Your task to perform on an android device: Search for logitech g502 on newegg.com, select the first entry, add it to the cart, then select checkout. Image 0: 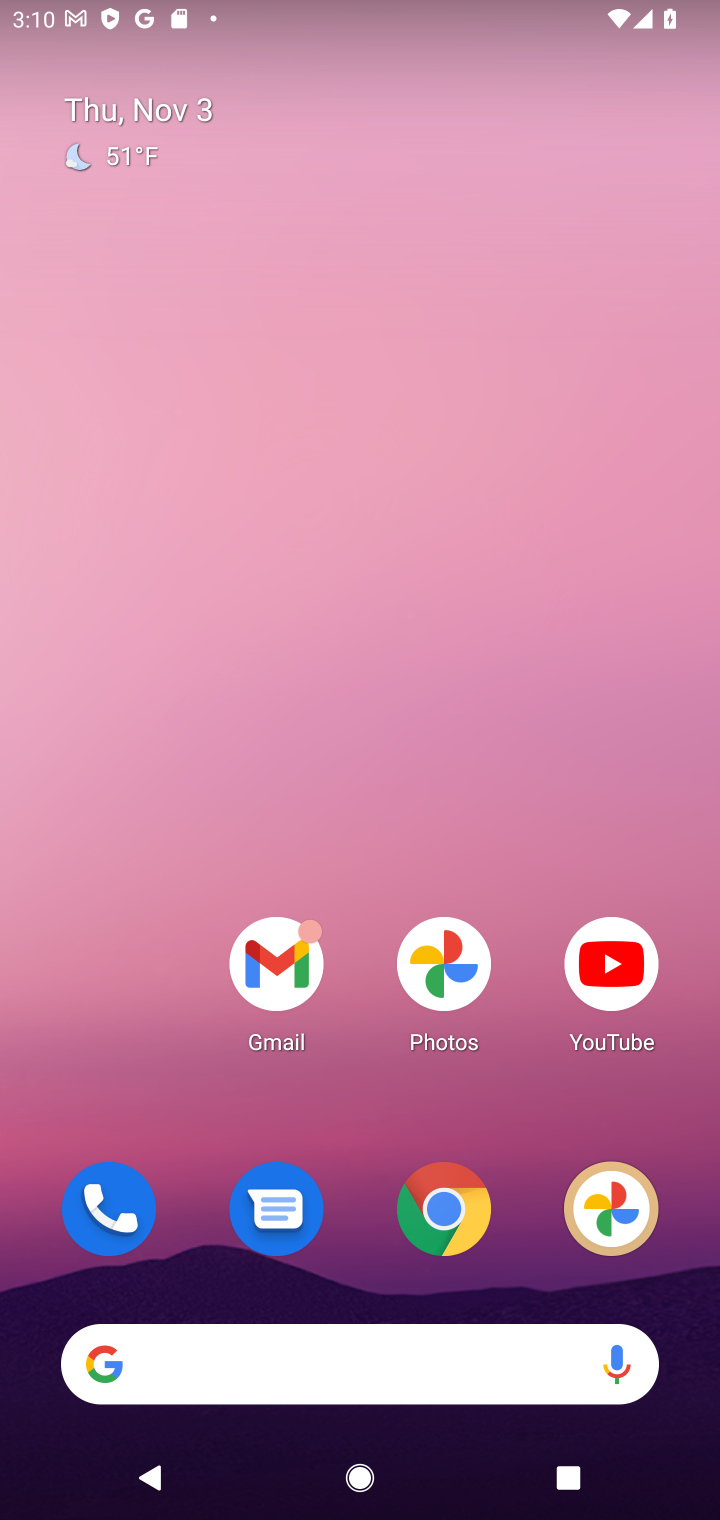
Step 0: click (427, 1246)
Your task to perform on an android device: Search for logitech g502 on newegg.com, select the first entry, add it to the cart, then select checkout. Image 1: 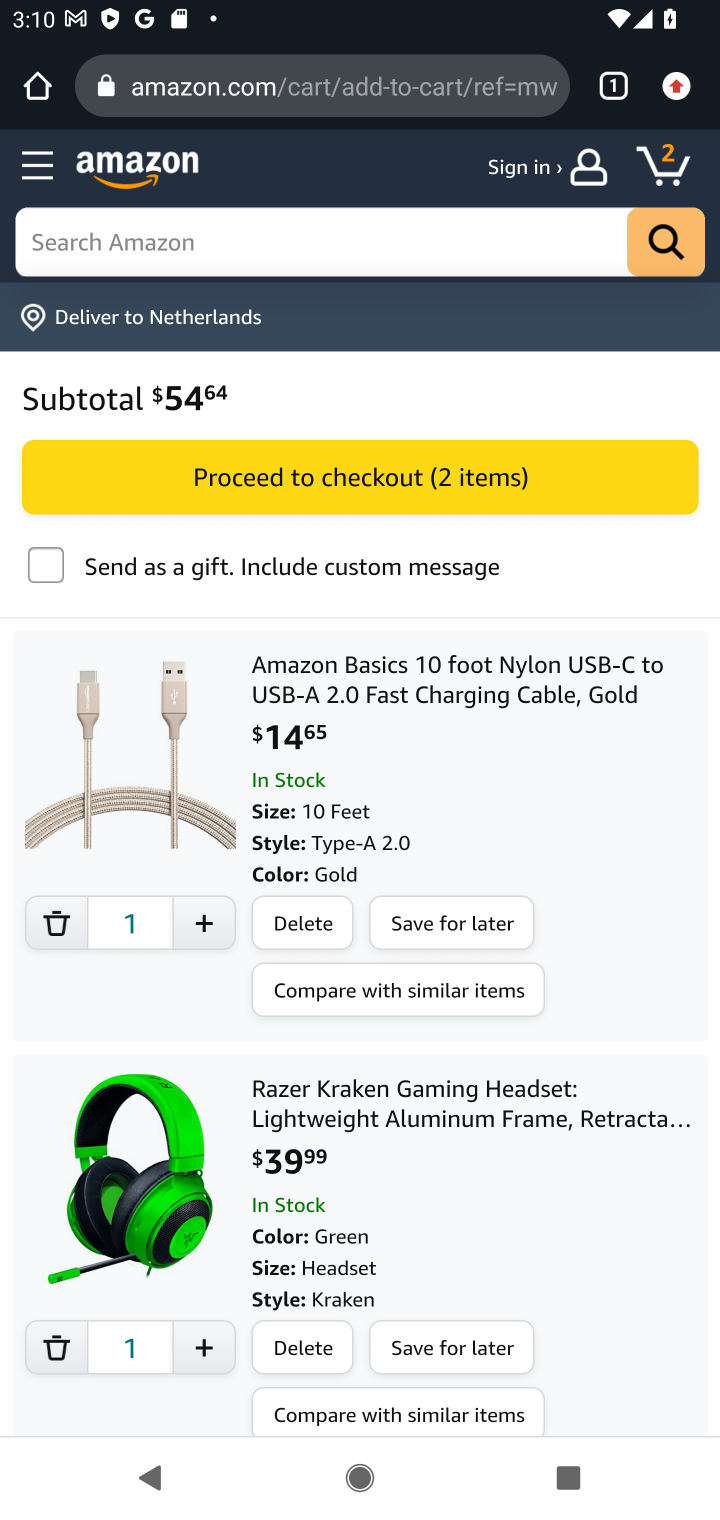
Step 1: click (325, 65)
Your task to perform on an android device: Search for logitech g502 on newegg.com, select the first entry, add it to the cart, then select checkout. Image 2: 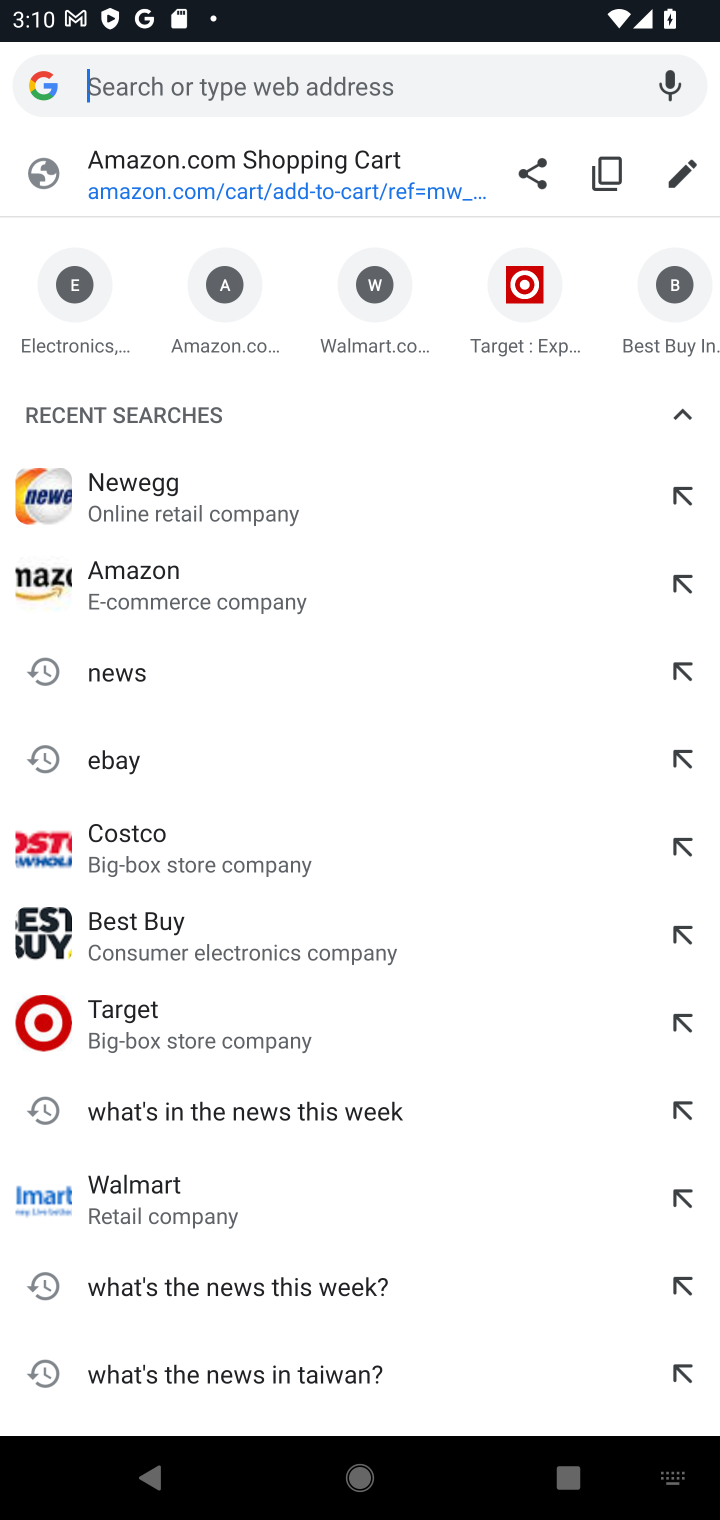
Step 2: type "newegg.com"
Your task to perform on an android device: Search for logitech g502 on newegg.com, select the first entry, add it to the cart, then select checkout. Image 3: 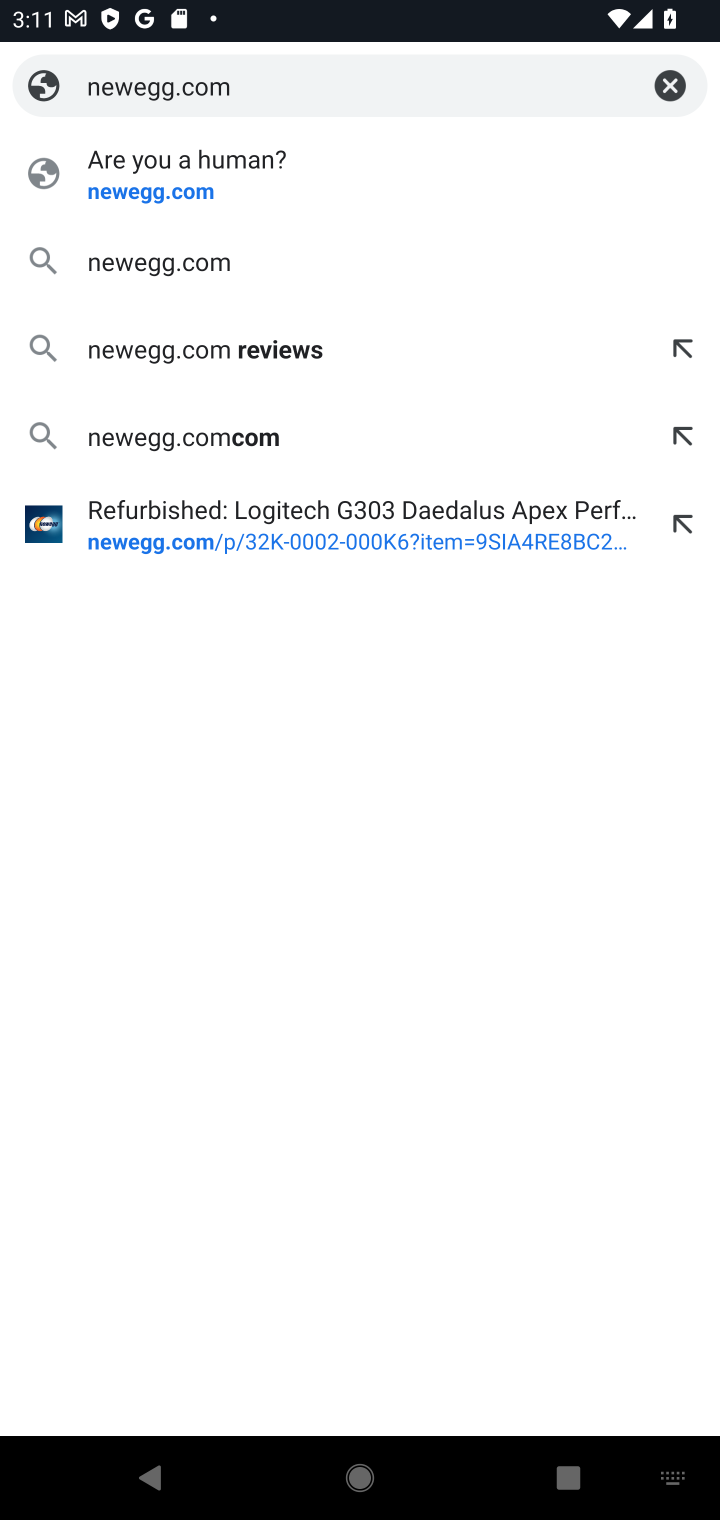
Step 3: click (215, 267)
Your task to perform on an android device: Search for logitech g502 on newegg.com, select the first entry, add it to the cart, then select checkout. Image 4: 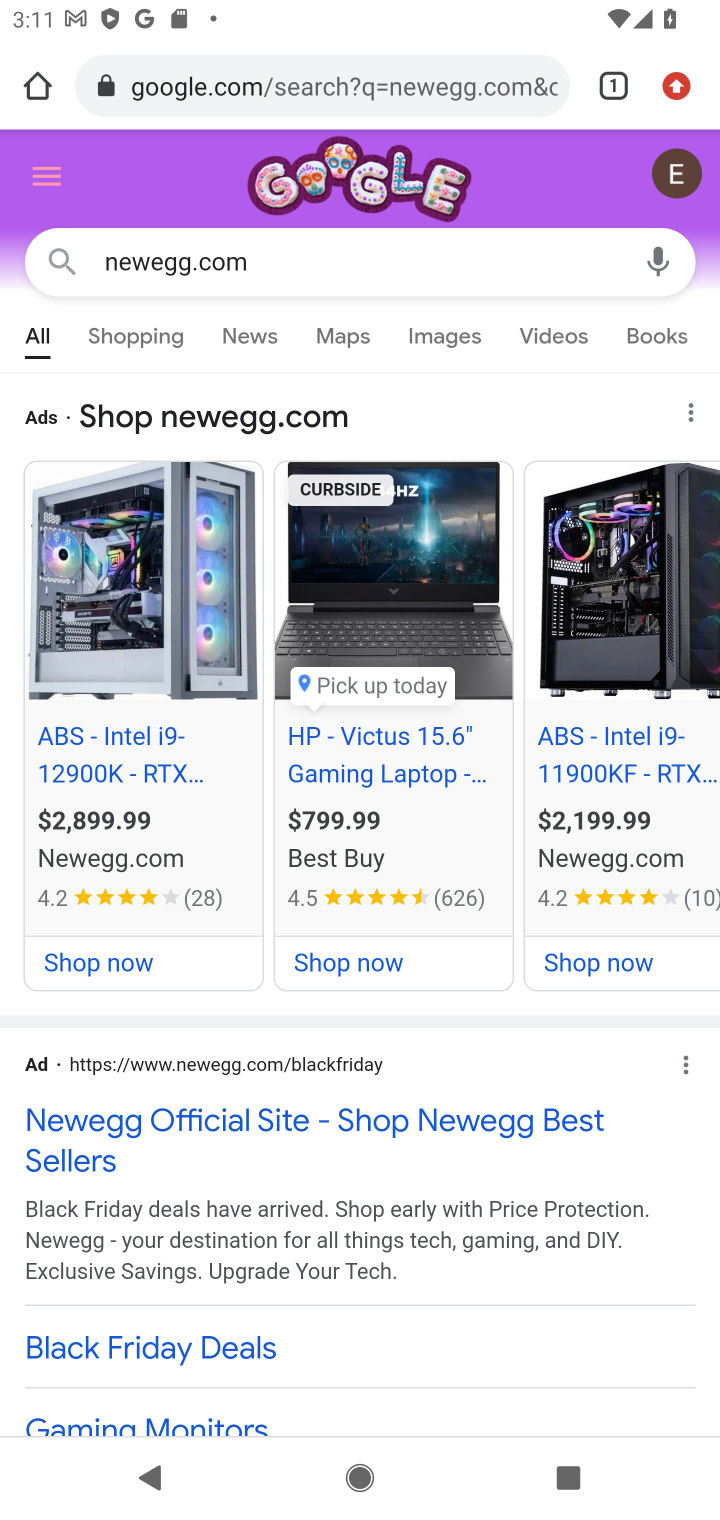
Step 4: drag from (561, 1251) to (460, 499)
Your task to perform on an android device: Search for logitech g502 on newegg.com, select the first entry, add it to the cart, then select checkout. Image 5: 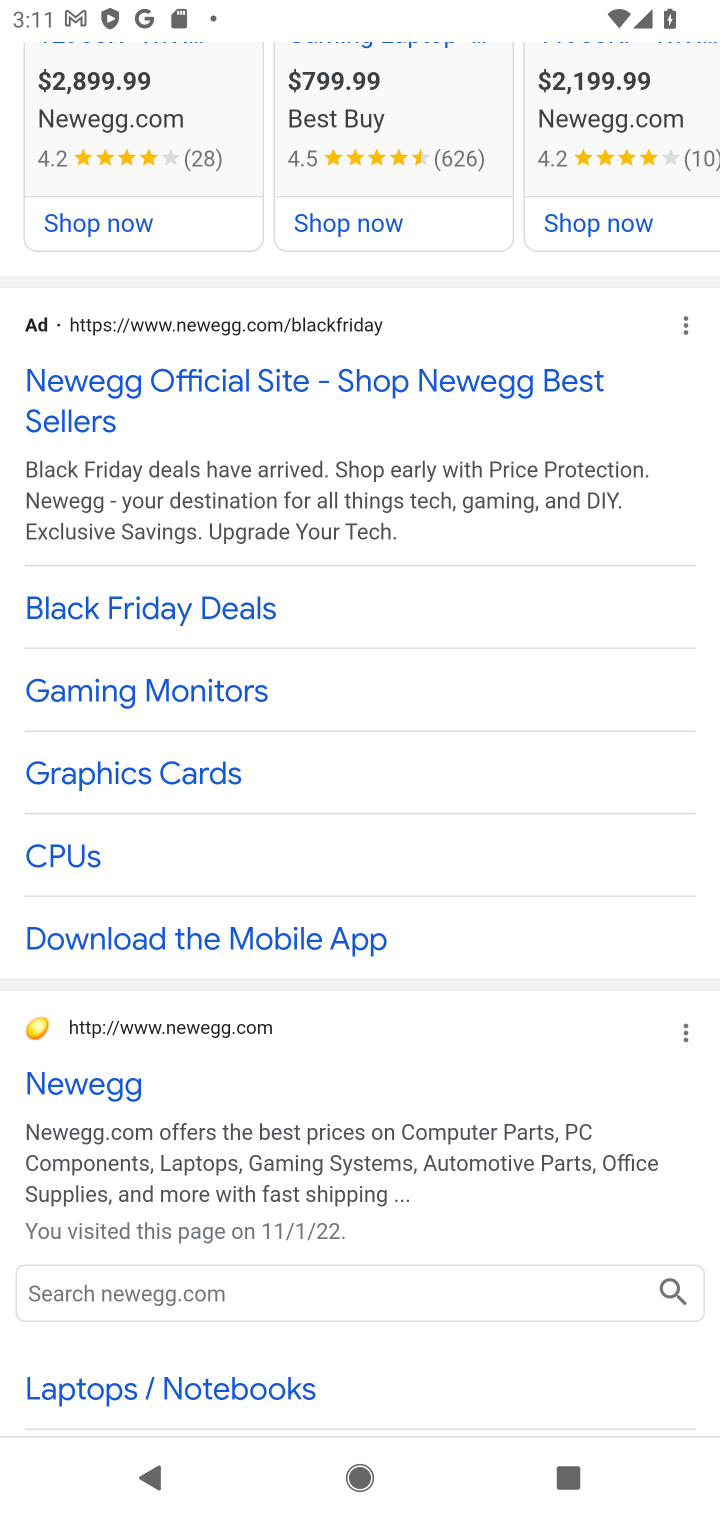
Step 5: click (81, 1074)
Your task to perform on an android device: Search for logitech g502 on newegg.com, select the first entry, add it to the cart, then select checkout. Image 6: 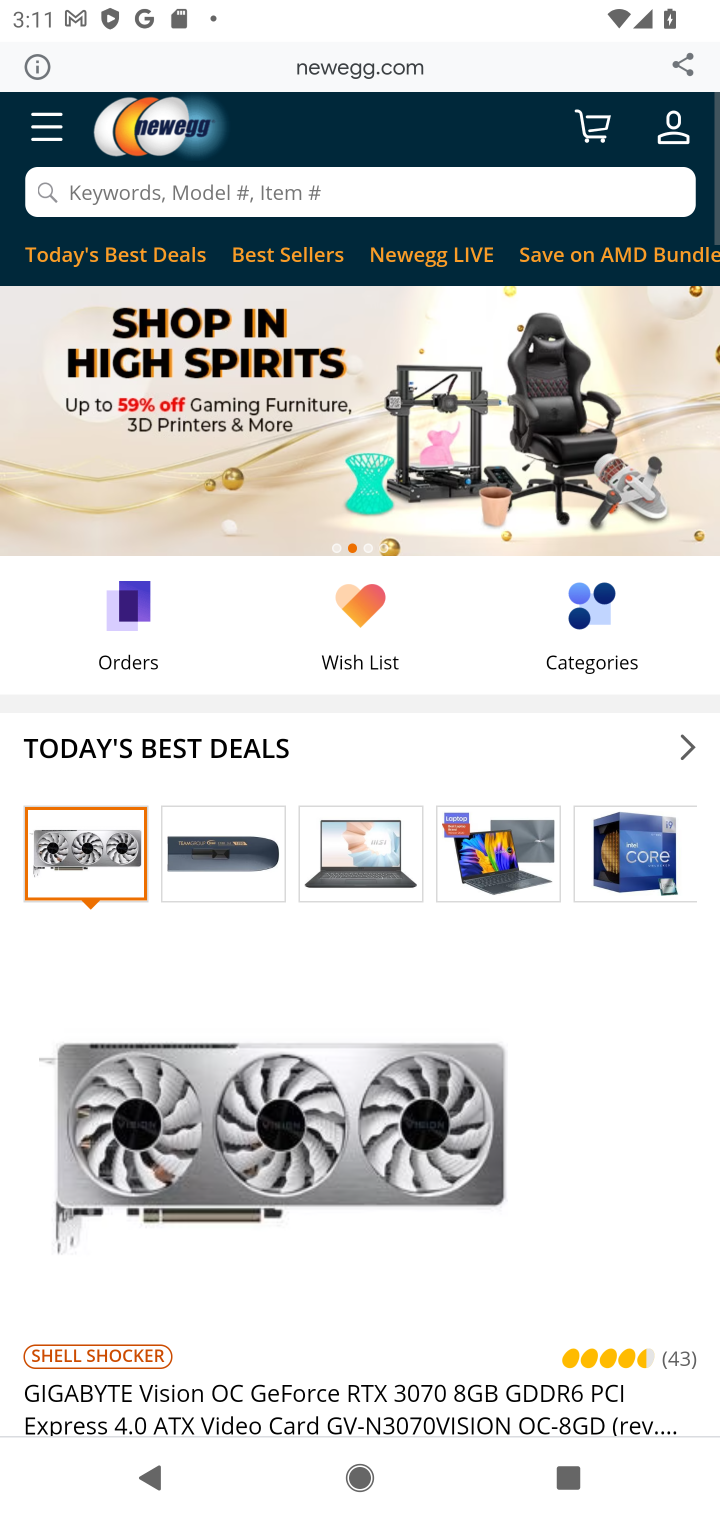
Step 6: click (236, 182)
Your task to perform on an android device: Search for logitech g502 on newegg.com, select the first entry, add it to the cart, then select checkout. Image 7: 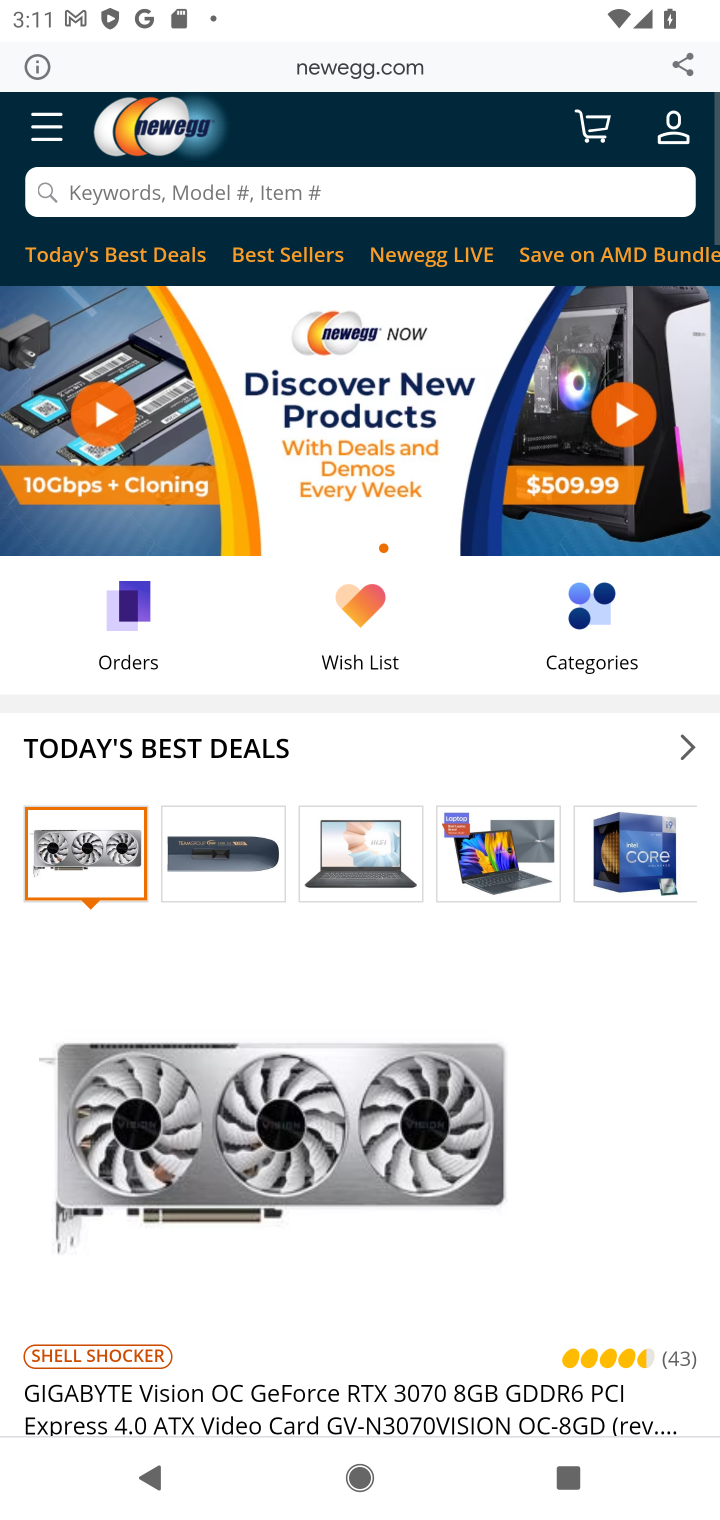
Step 7: click (317, 174)
Your task to perform on an android device: Search for logitech g502 on newegg.com, select the first entry, add it to the cart, then select checkout. Image 8: 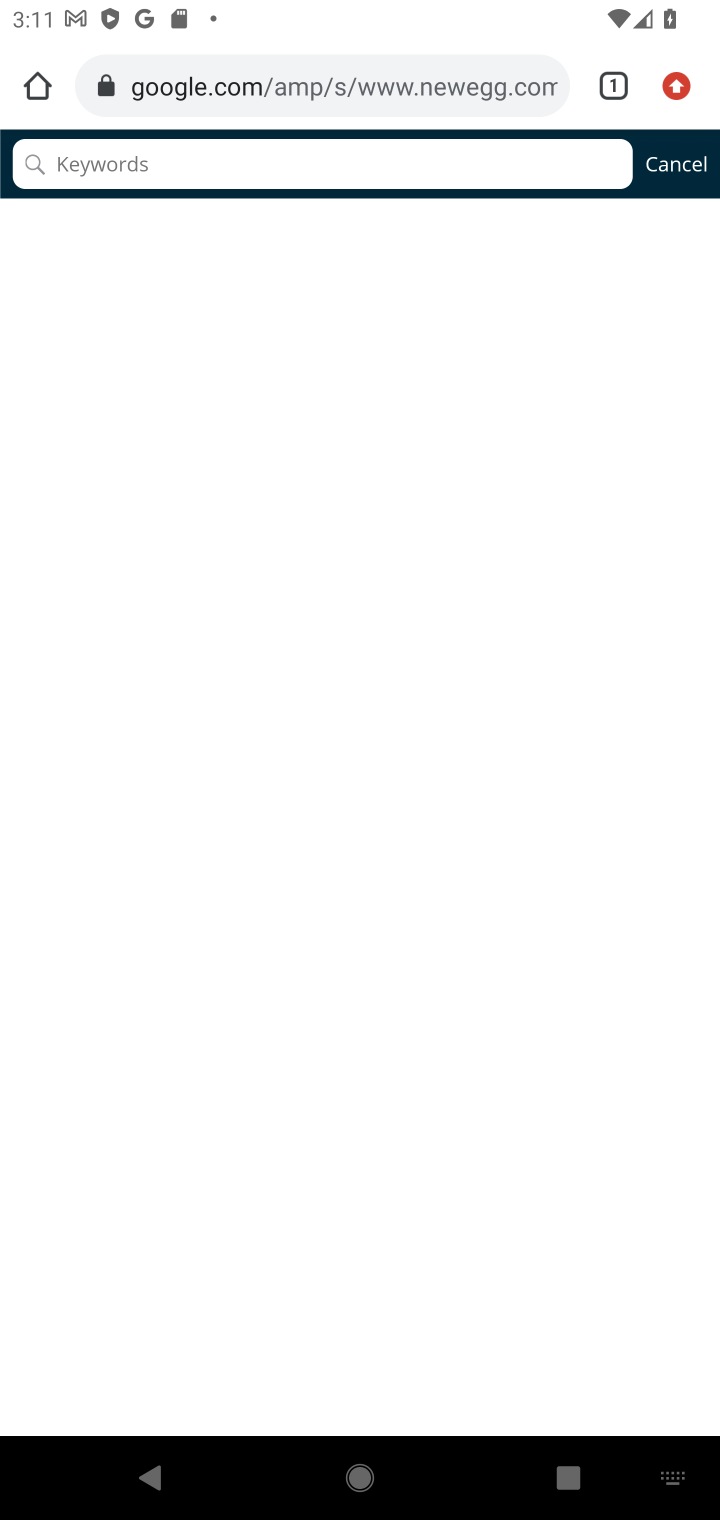
Step 8: type "logitech g502"
Your task to perform on an android device: Search for logitech g502 on newegg.com, select the first entry, add it to the cart, then select checkout. Image 9: 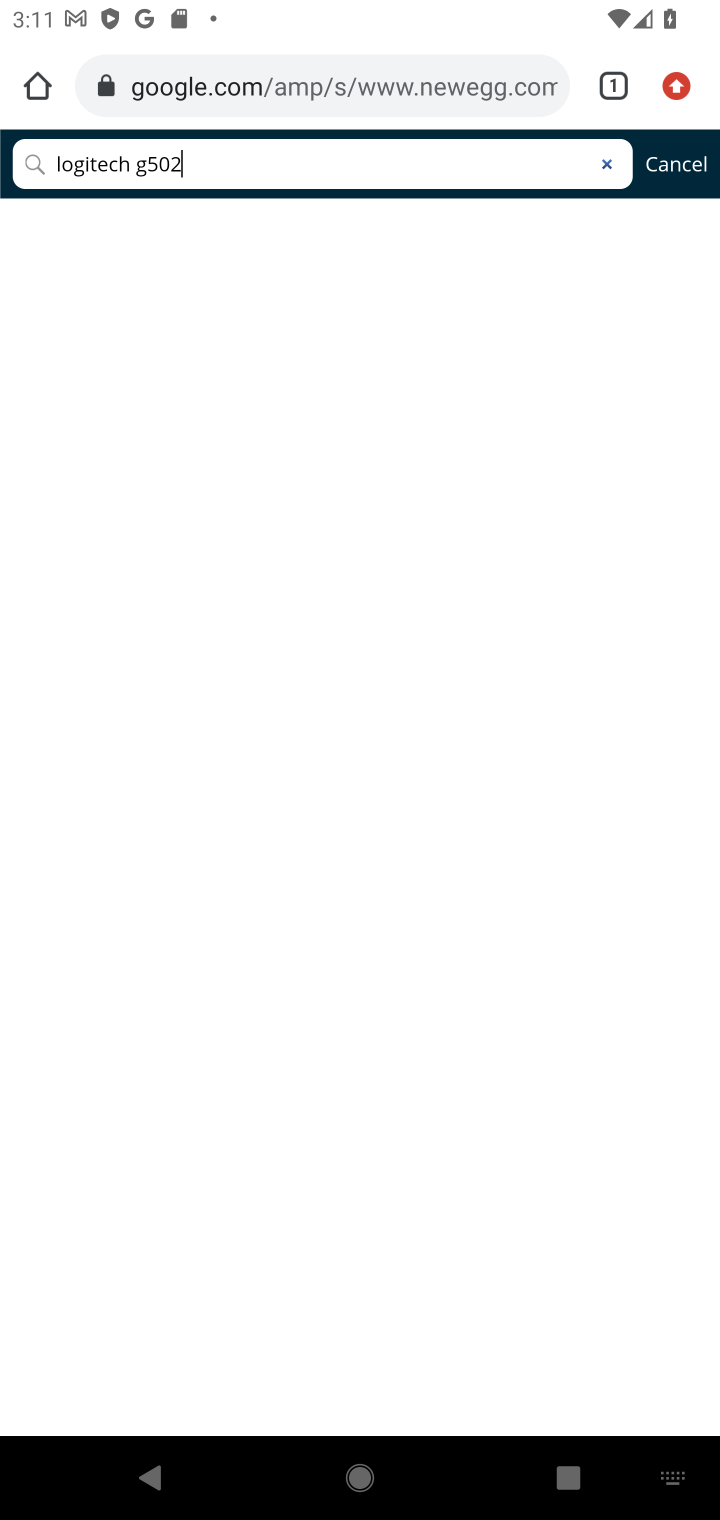
Step 9: press enter
Your task to perform on an android device: Search for logitech g502 on newegg.com, select the first entry, add it to the cart, then select checkout. Image 10: 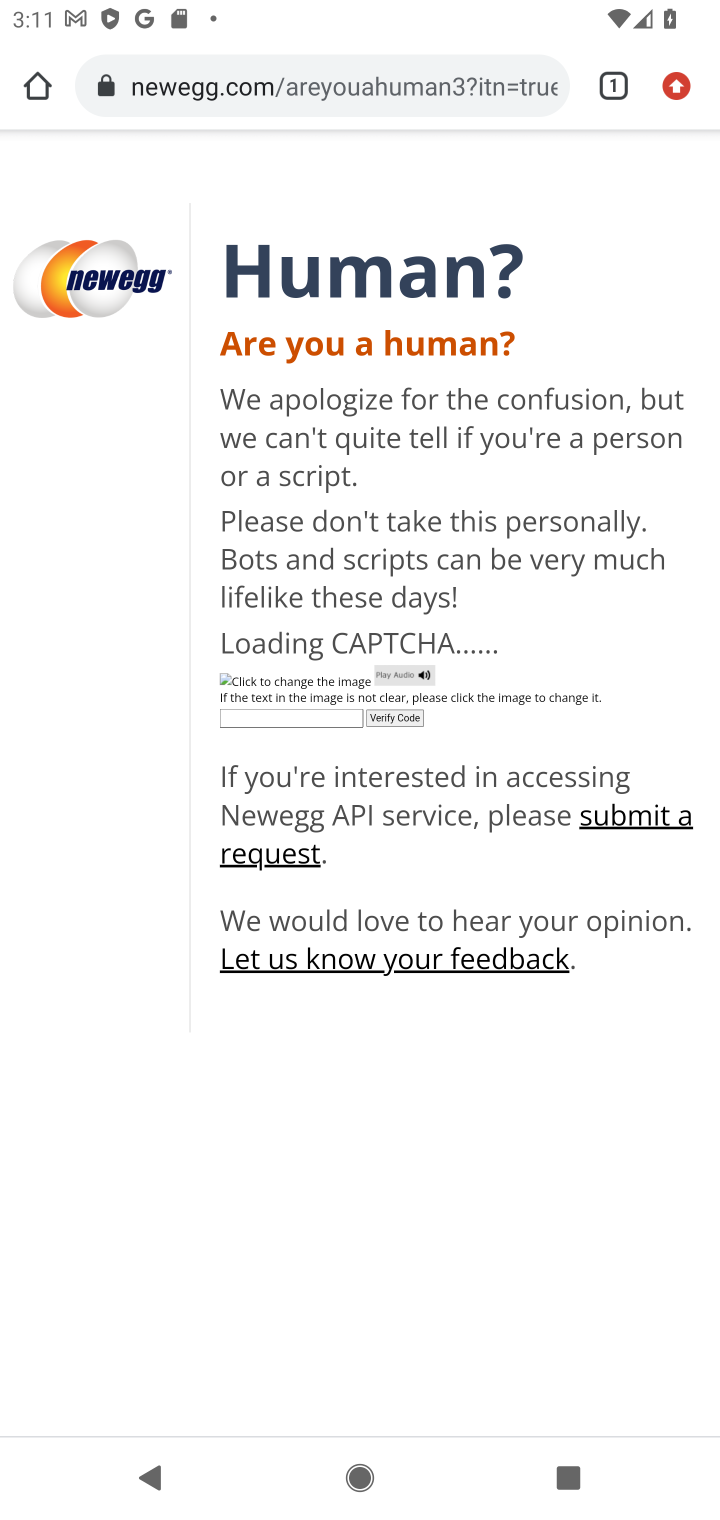
Step 10: task complete